Your task to perform on an android device: Show me the alarms in the clock app Image 0: 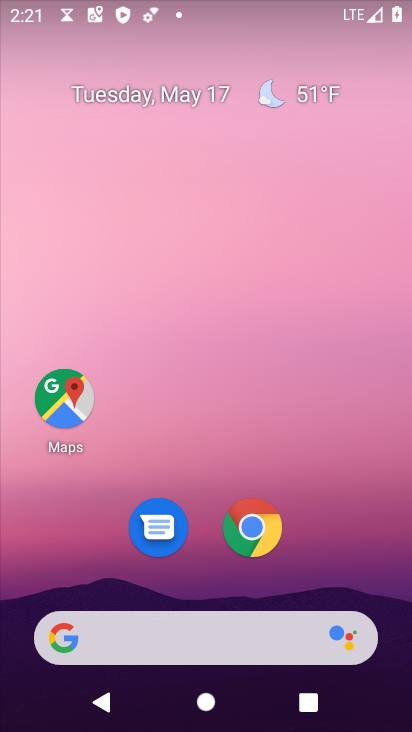
Step 0: drag from (323, 557) to (243, 103)
Your task to perform on an android device: Show me the alarms in the clock app Image 1: 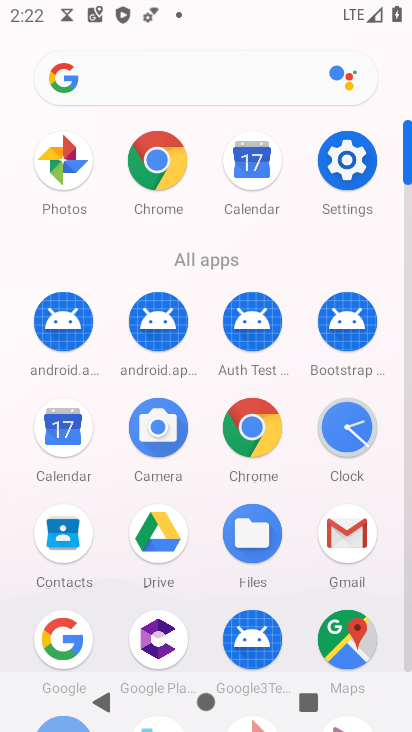
Step 1: click (347, 426)
Your task to perform on an android device: Show me the alarms in the clock app Image 2: 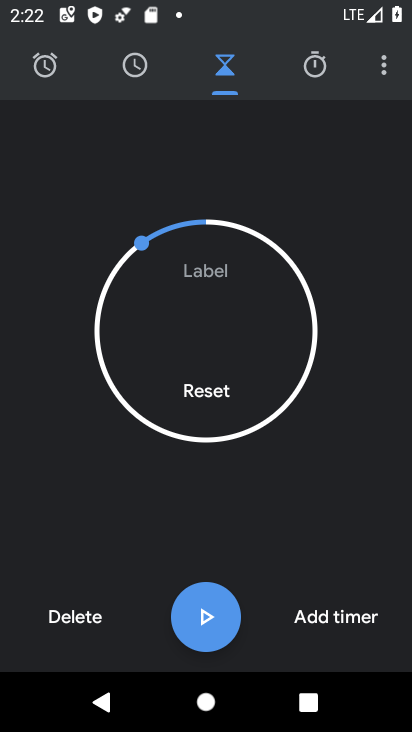
Step 2: click (43, 58)
Your task to perform on an android device: Show me the alarms in the clock app Image 3: 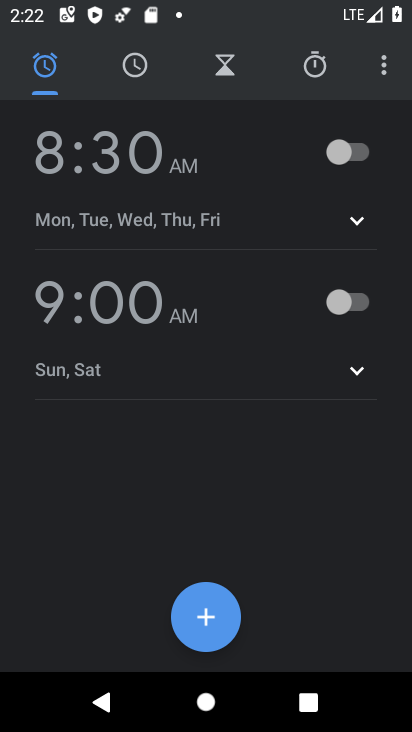
Step 3: click (204, 617)
Your task to perform on an android device: Show me the alarms in the clock app Image 4: 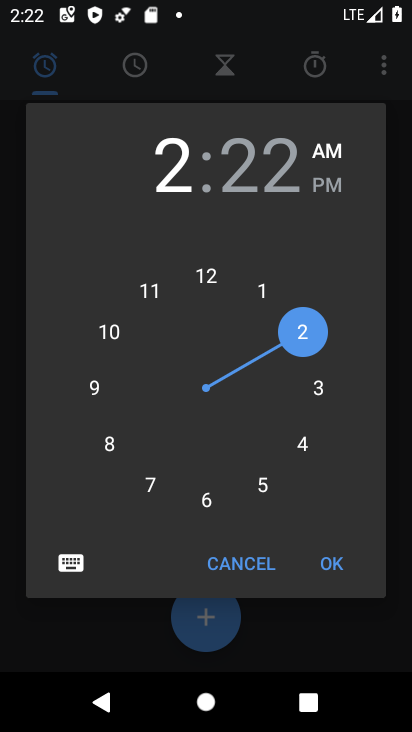
Step 4: click (146, 300)
Your task to perform on an android device: Show me the alarms in the clock app Image 5: 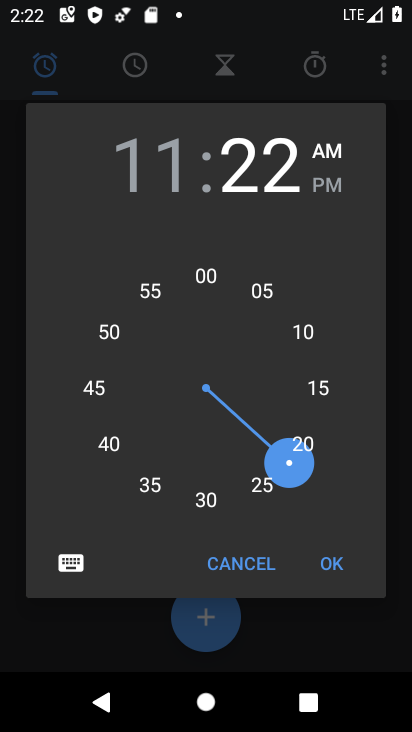
Step 5: click (258, 295)
Your task to perform on an android device: Show me the alarms in the clock app Image 6: 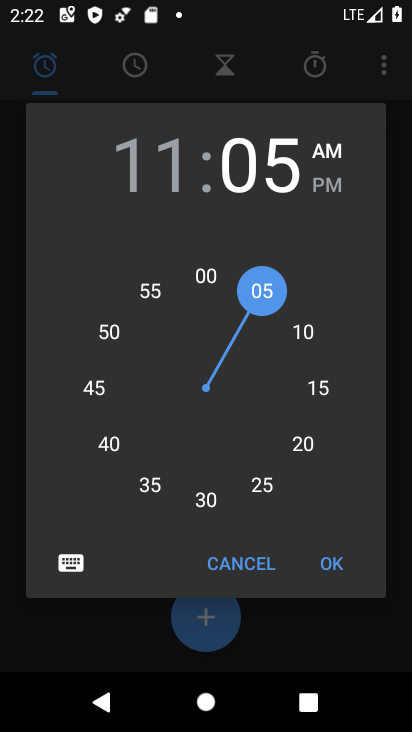
Step 6: click (329, 576)
Your task to perform on an android device: Show me the alarms in the clock app Image 7: 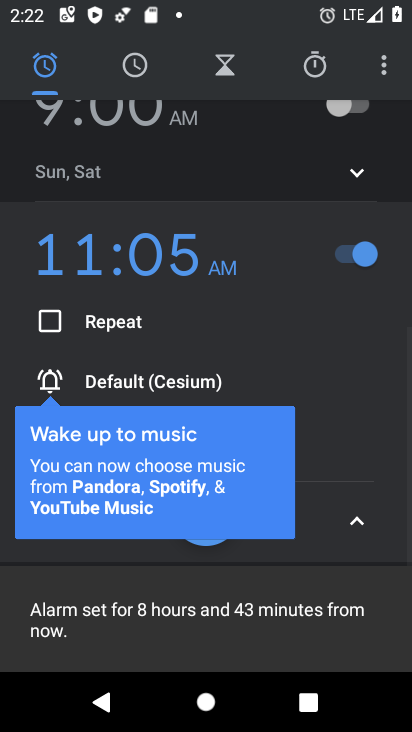
Step 7: click (350, 515)
Your task to perform on an android device: Show me the alarms in the clock app Image 8: 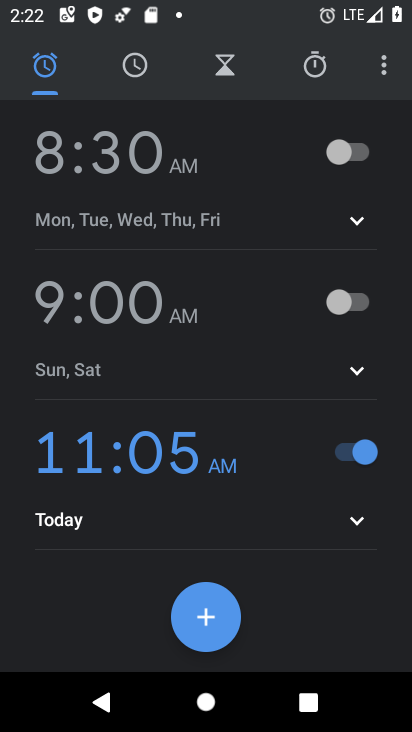
Step 8: task complete